Your task to perform on an android device: turn pop-ups off in chrome Image 0: 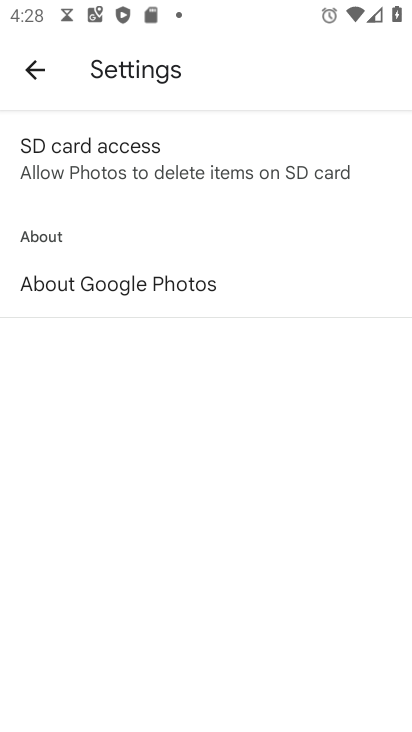
Step 0: press home button
Your task to perform on an android device: turn pop-ups off in chrome Image 1: 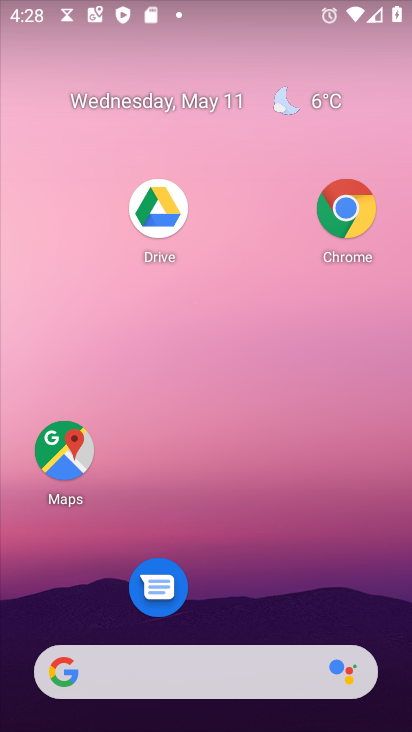
Step 1: click (358, 199)
Your task to perform on an android device: turn pop-ups off in chrome Image 2: 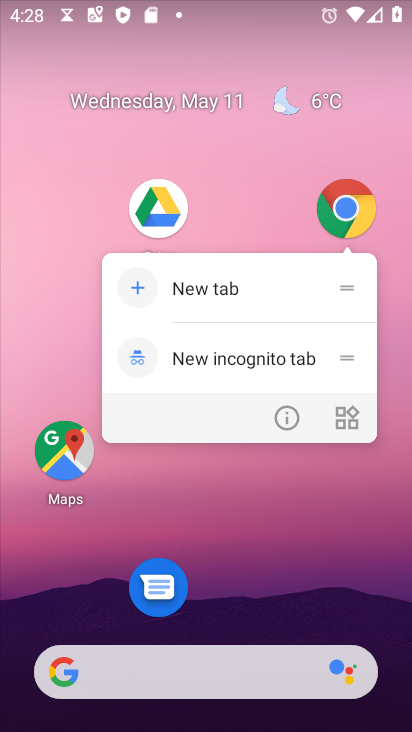
Step 2: click (358, 199)
Your task to perform on an android device: turn pop-ups off in chrome Image 3: 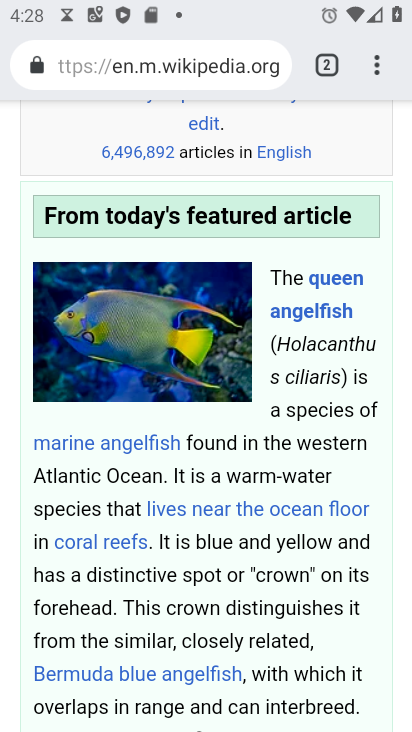
Step 3: drag from (265, 133) to (247, 485)
Your task to perform on an android device: turn pop-ups off in chrome Image 4: 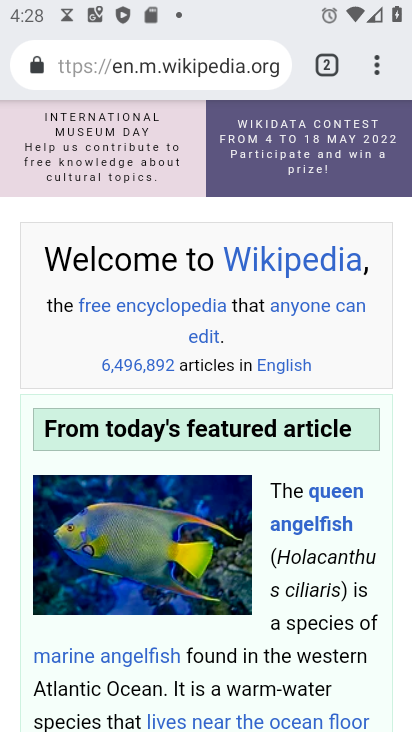
Step 4: click (370, 66)
Your task to perform on an android device: turn pop-ups off in chrome Image 5: 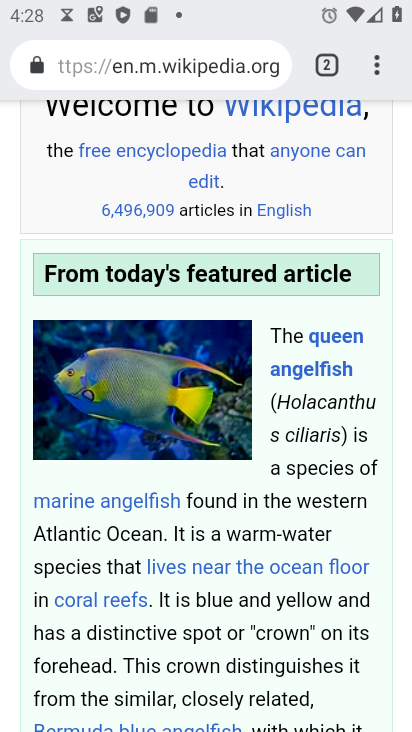
Step 5: click (313, 62)
Your task to perform on an android device: turn pop-ups off in chrome Image 6: 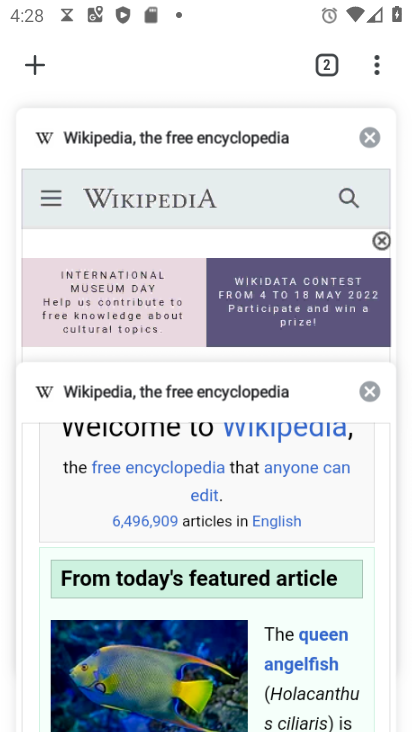
Step 6: click (374, 130)
Your task to perform on an android device: turn pop-ups off in chrome Image 7: 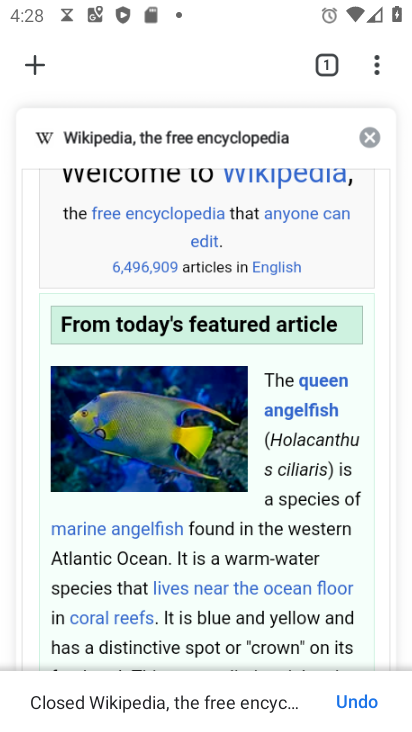
Step 7: click (371, 145)
Your task to perform on an android device: turn pop-ups off in chrome Image 8: 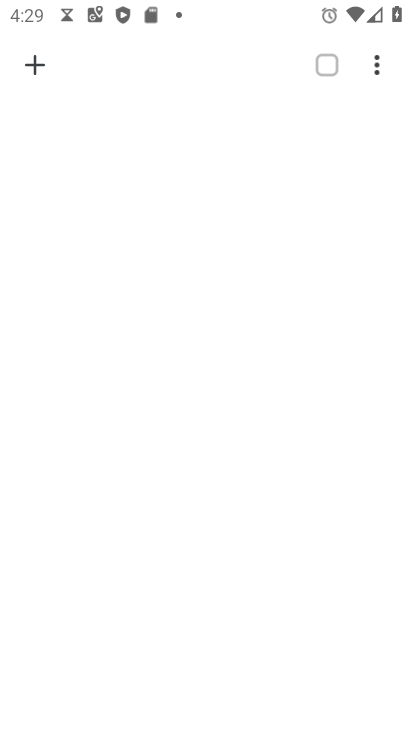
Step 8: click (372, 64)
Your task to perform on an android device: turn pop-ups off in chrome Image 9: 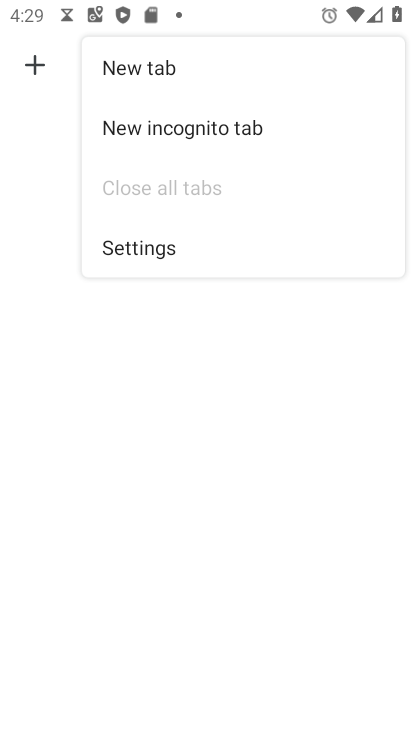
Step 9: click (188, 252)
Your task to perform on an android device: turn pop-ups off in chrome Image 10: 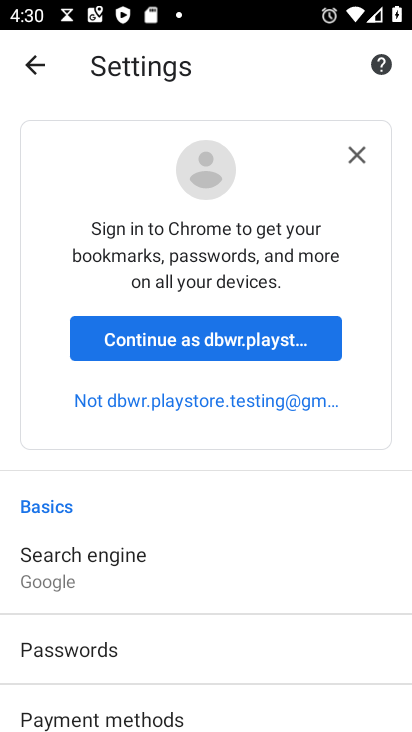
Step 10: drag from (151, 561) to (109, 286)
Your task to perform on an android device: turn pop-ups off in chrome Image 11: 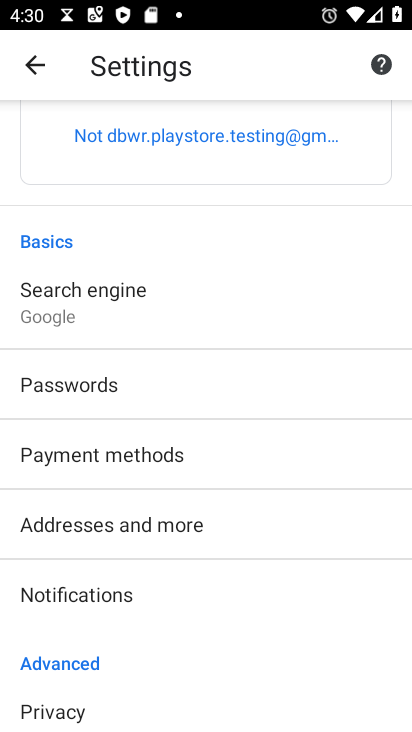
Step 11: drag from (173, 649) to (170, 176)
Your task to perform on an android device: turn pop-ups off in chrome Image 12: 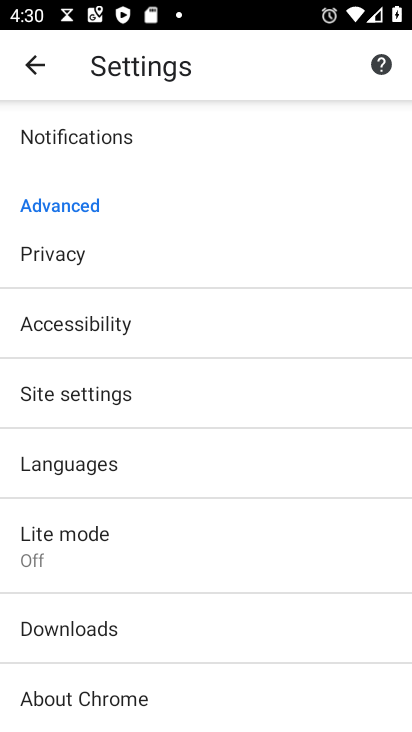
Step 12: click (160, 378)
Your task to perform on an android device: turn pop-ups off in chrome Image 13: 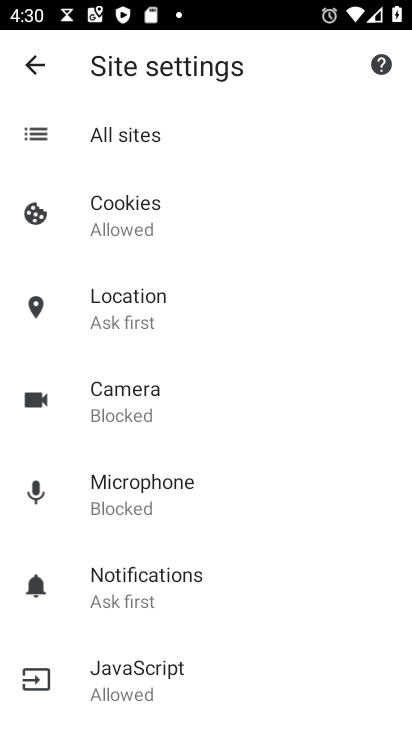
Step 13: drag from (226, 503) to (226, 295)
Your task to perform on an android device: turn pop-ups off in chrome Image 14: 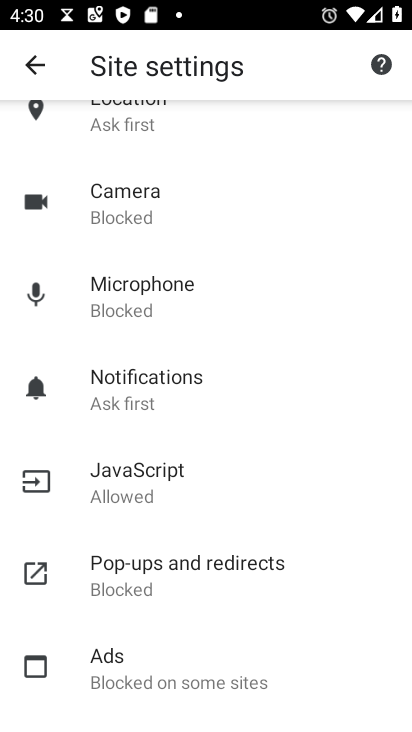
Step 14: click (250, 555)
Your task to perform on an android device: turn pop-ups off in chrome Image 15: 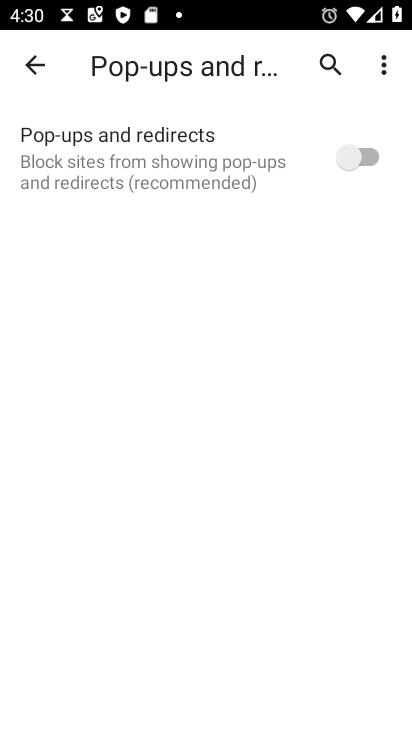
Step 15: task complete